Your task to perform on an android device: Open the calendar app, open the side menu, and click the "Day" option Image 0: 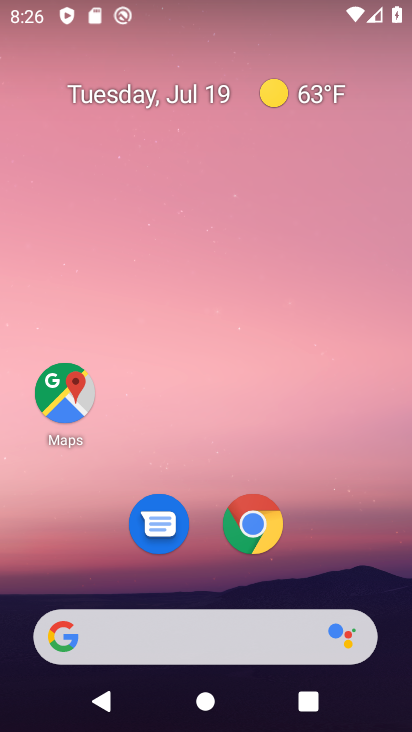
Step 0: drag from (182, 637) to (315, 141)
Your task to perform on an android device: Open the calendar app, open the side menu, and click the "Day" option Image 1: 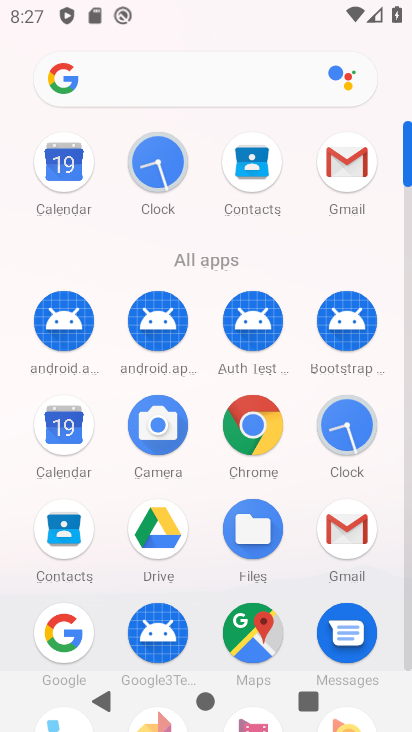
Step 1: click (58, 438)
Your task to perform on an android device: Open the calendar app, open the side menu, and click the "Day" option Image 2: 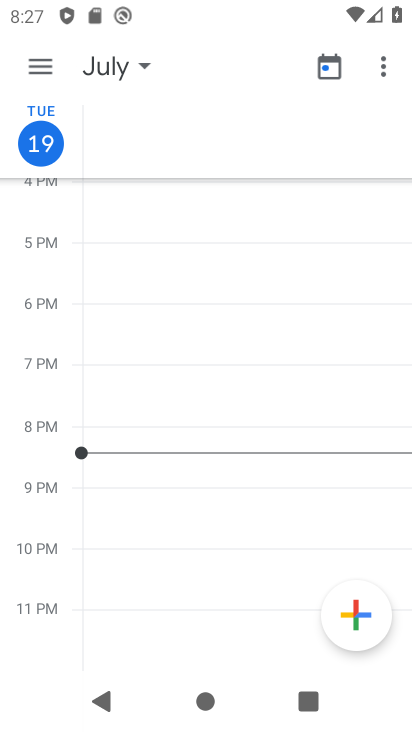
Step 2: click (45, 66)
Your task to perform on an android device: Open the calendar app, open the side menu, and click the "Day" option Image 3: 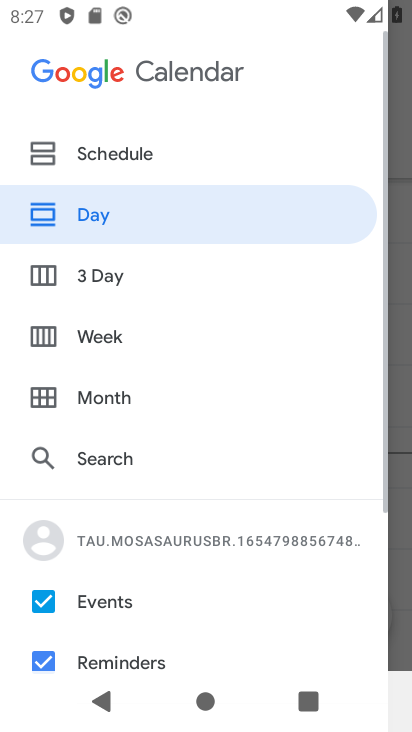
Step 3: click (87, 215)
Your task to perform on an android device: Open the calendar app, open the side menu, and click the "Day" option Image 4: 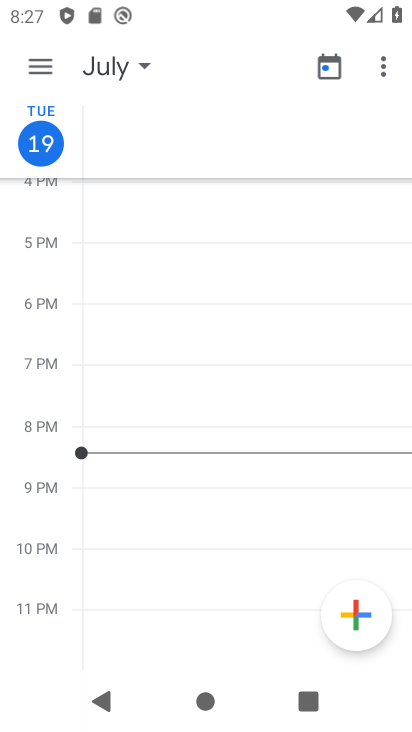
Step 4: task complete